Your task to perform on an android device: Do I have any events this weekend? Image 0: 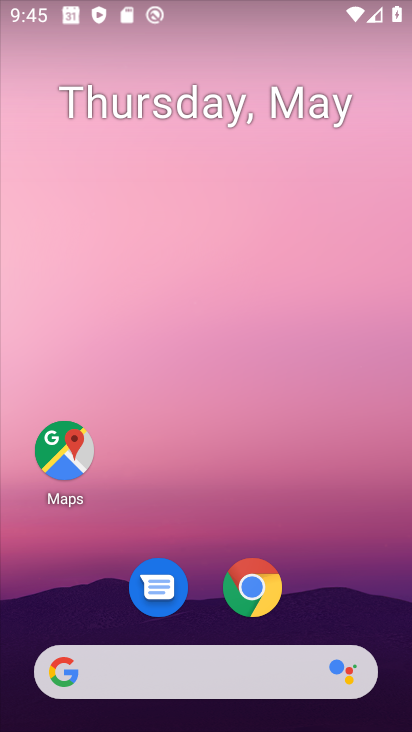
Step 0: drag from (321, 632) to (1, 66)
Your task to perform on an android device: Do I have any events this weekend? Image 1: 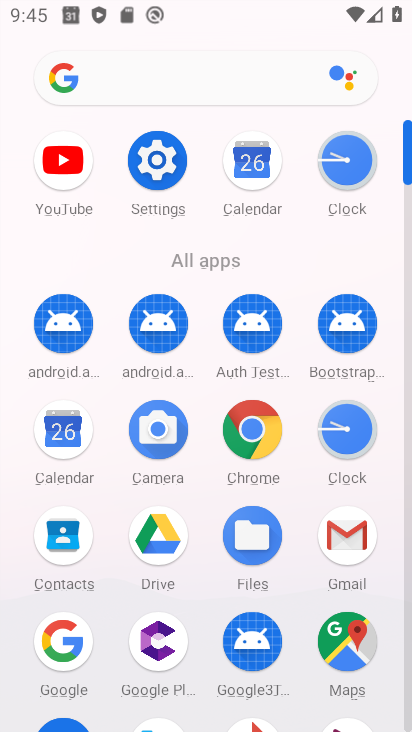
Step 1: click (57, 427)
Your task to perform on an android device: Do I have any events this weekend? Image 2: 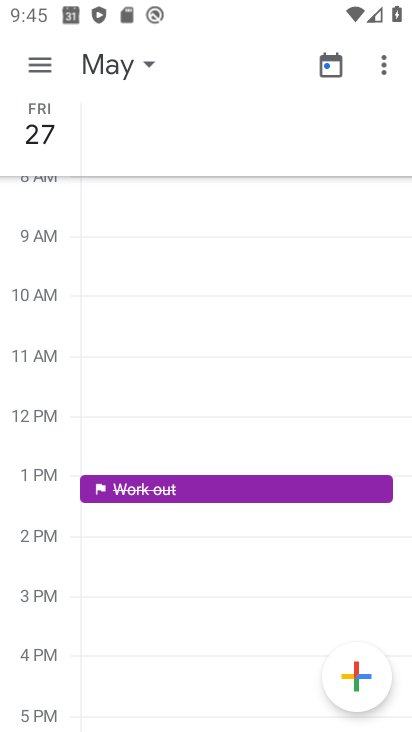
Step 2: click (43, 65)
Your task to perform on an android device: Do I have any events this weekend? Image 3: 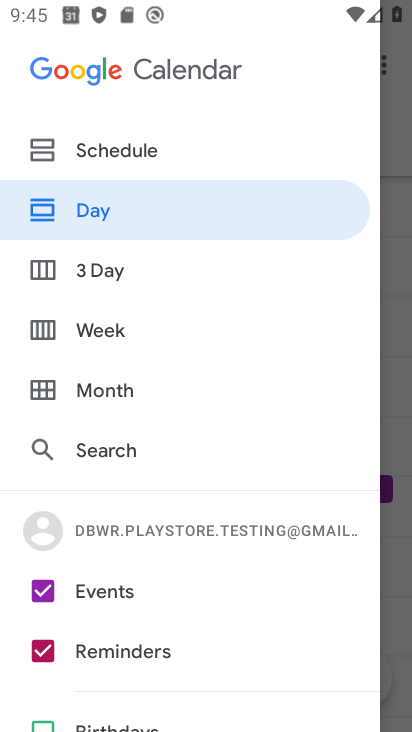
Step 3: click (103, 336)
Your task to perform on an android device: Do I have any events this weekend? Image 4: 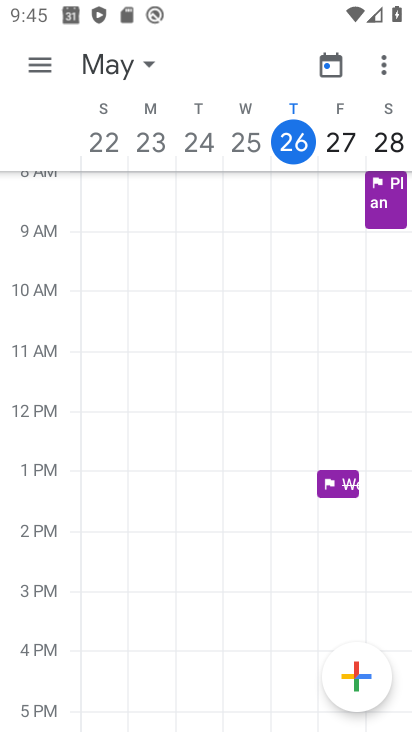
Step 4: task complete